Your task to perform on an android device: Open Google Maps and go to "Timeline" Image 0: 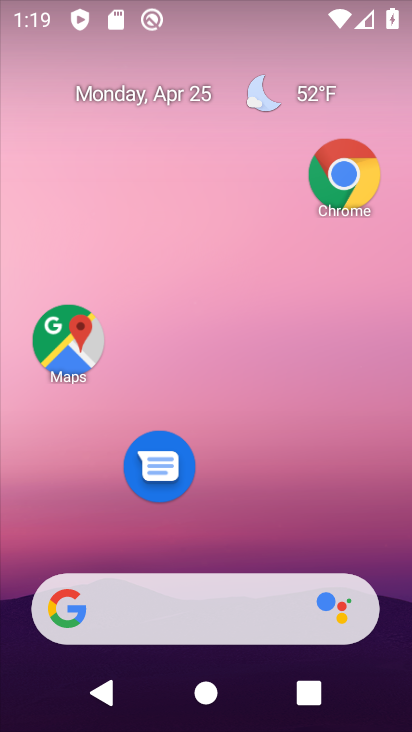
Step 0: drag from (257, 498) to (246, 39)
Your task to perform on an android device: Open Google Maps and go to "Timeline" Image 1: 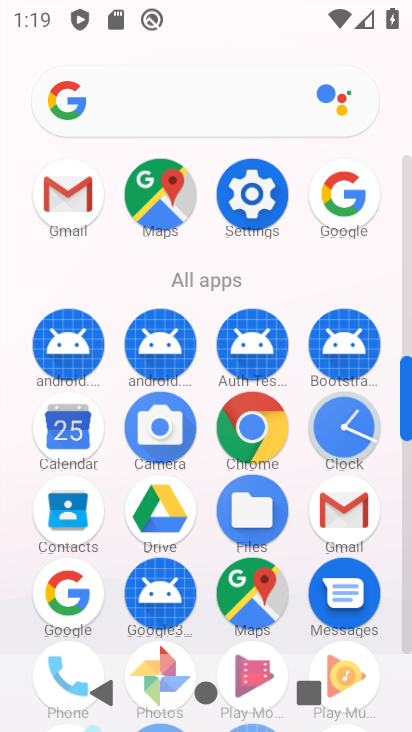
Step 1: click (157, 198)
Your task to perform on an android device: Open Google Maps and go to "Timeline" Image 2: 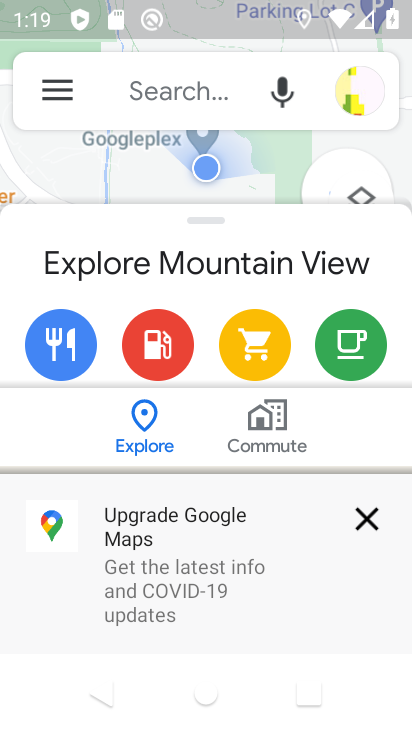
Step 2: click (42, 89)
Your task to perform on an android device: Open Google Maps and go to "Timeline" Image 3: 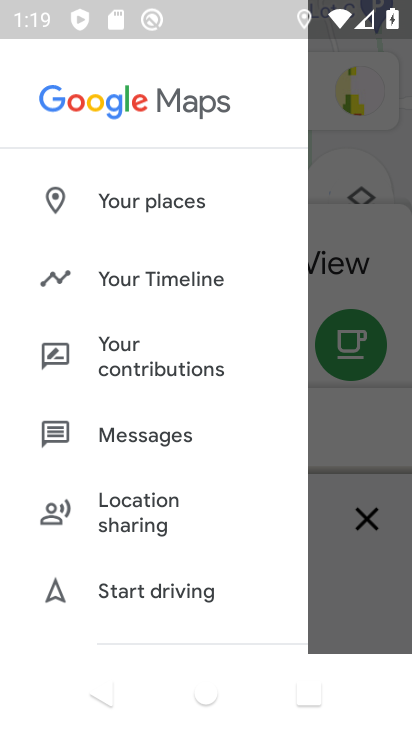
Step 3: click (115, 265)
Your task to perform on an android device: Open Google Maps and go to "Timeline" Image 4: 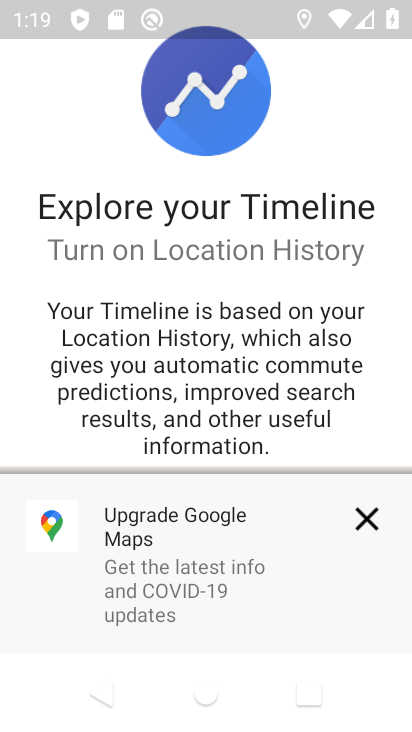
Step 4: task complete